Your task to perform on an android device: Check the weather Image 0: 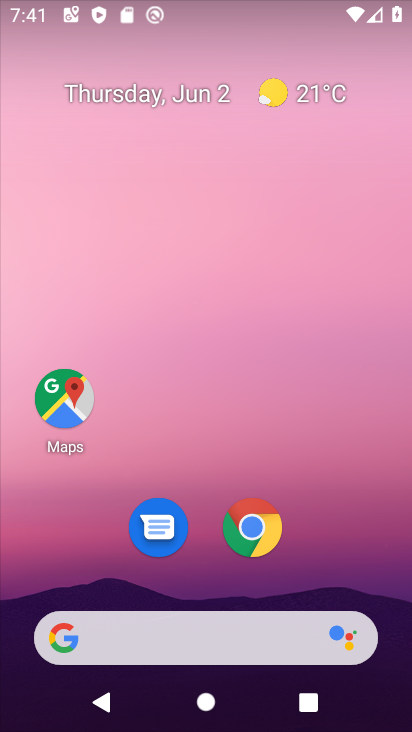
Step 0: click (333, 98)
Your task to perform on an android device: Check the weather Image 1: 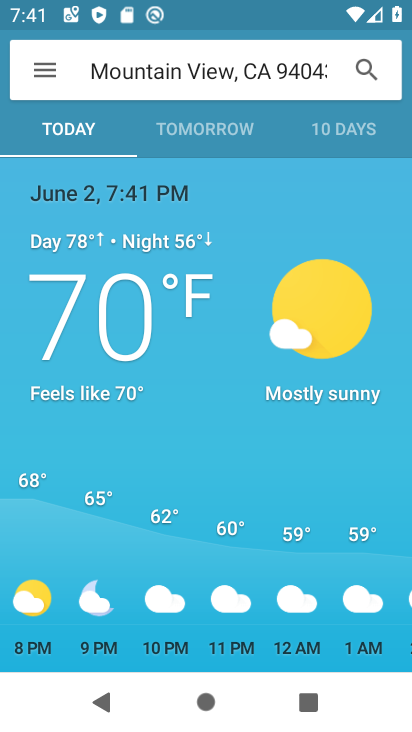
Step 1: task complete